Your task to perform on an android device: open device folders in google photos Image 0: 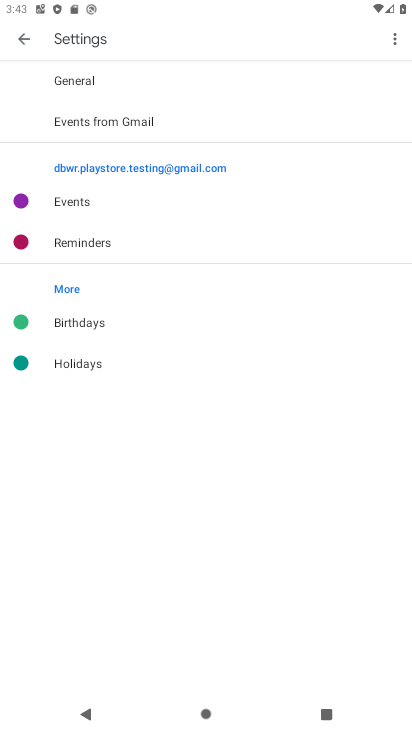
Step 0: press home button
Your task to perform on an android device: open device folders in google photos Image 1: 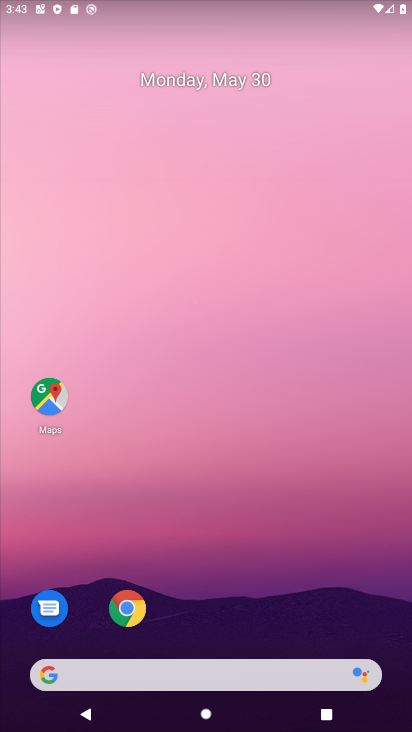
Step 1: drag from (253, 605) to (300, 273)
Your task to perform on an android device: open device folders in google photos Image 2: 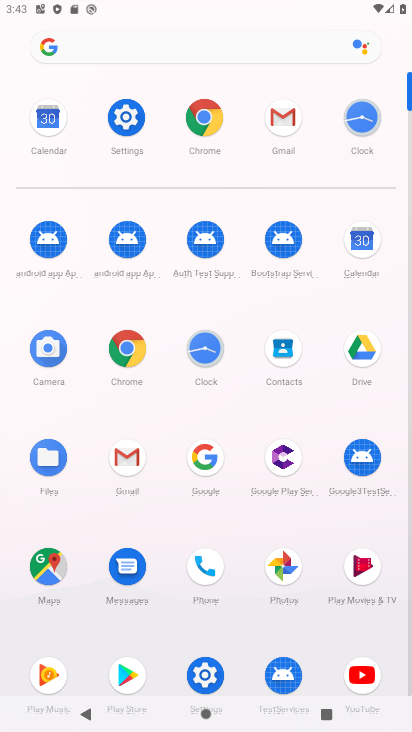
Step 2: click (278, 565)
Your task to perform on an android device: open device folders in google photos Image 3: 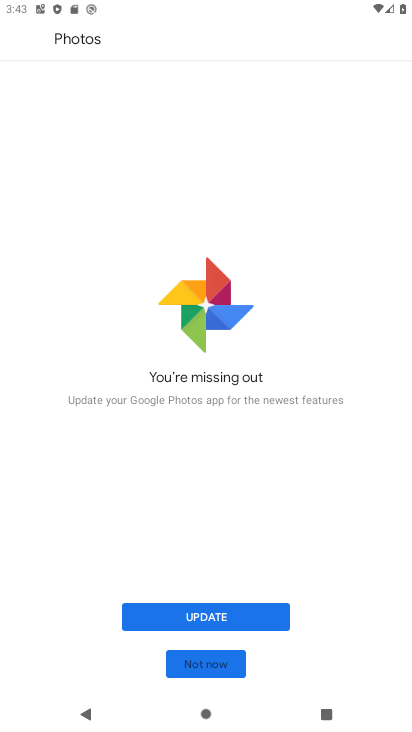
Step 3: click (216, 651)
Your task to perform on an android device: open device folders in google photos Image 4: 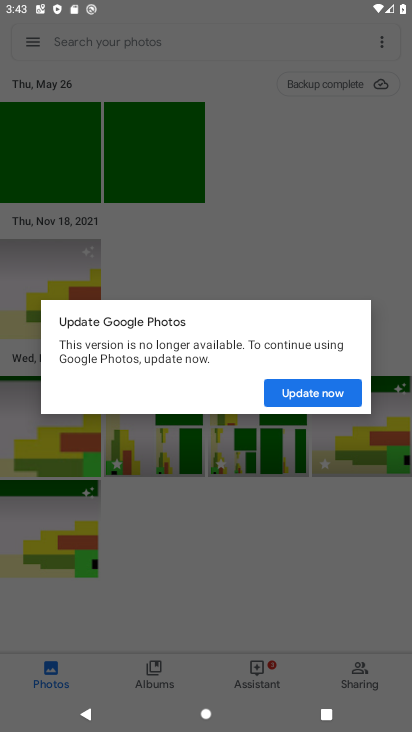
Step 4: press back button
Your task to perform on an android device: open device folders in google photos Image 5: 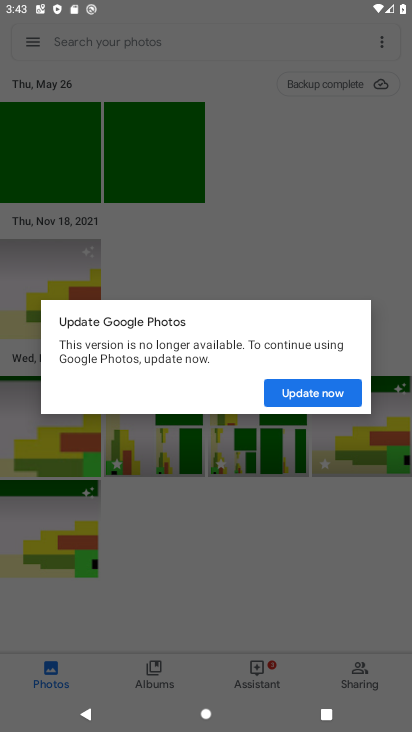
Step 5: click (299, 388)
Your task to perform on an android device: open device folders in google photos Image 6: 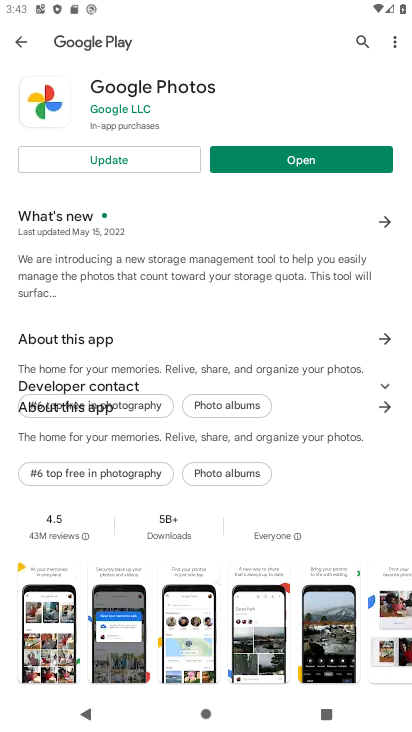
Step 6: task complete